Your task to perform on an android device: toggle location history Image 0: 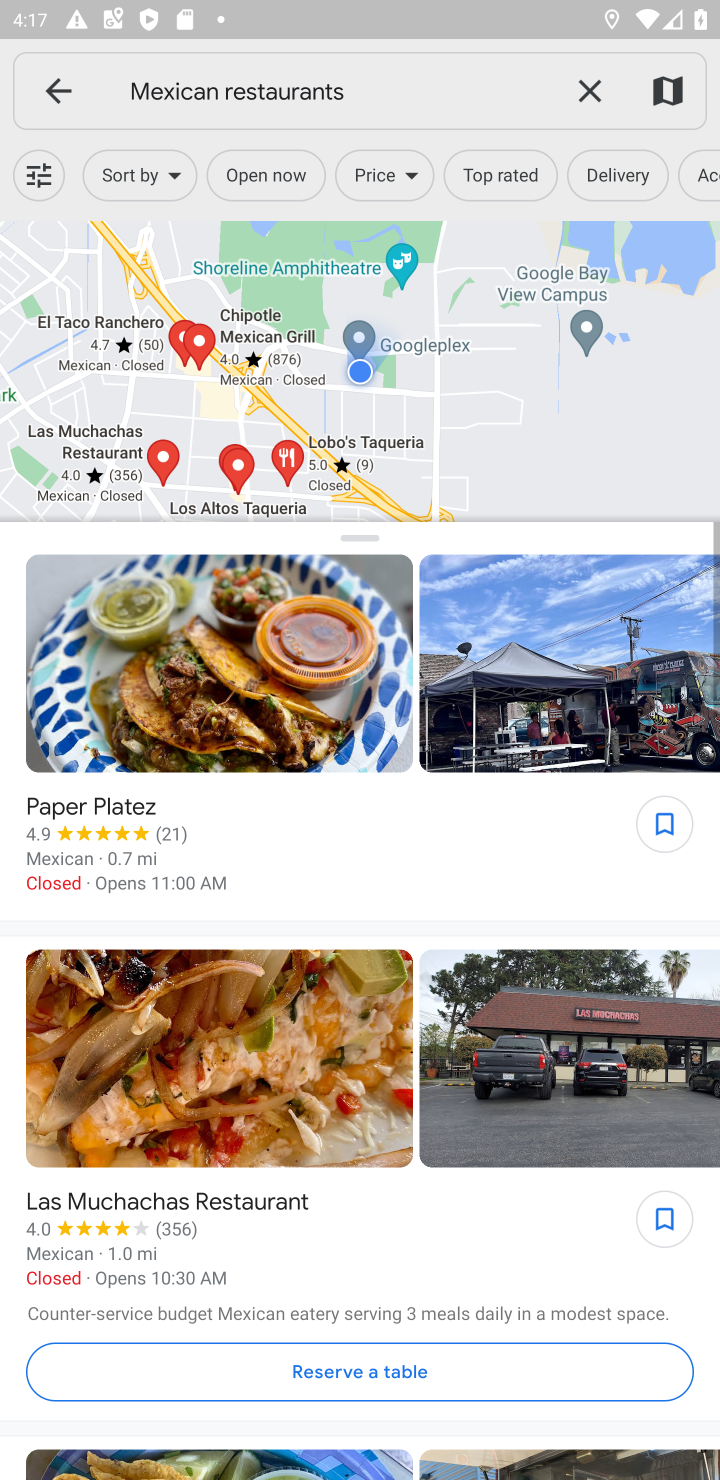
Step 0: press home button
Your task to perform on an android device: toggle location history Image 1: 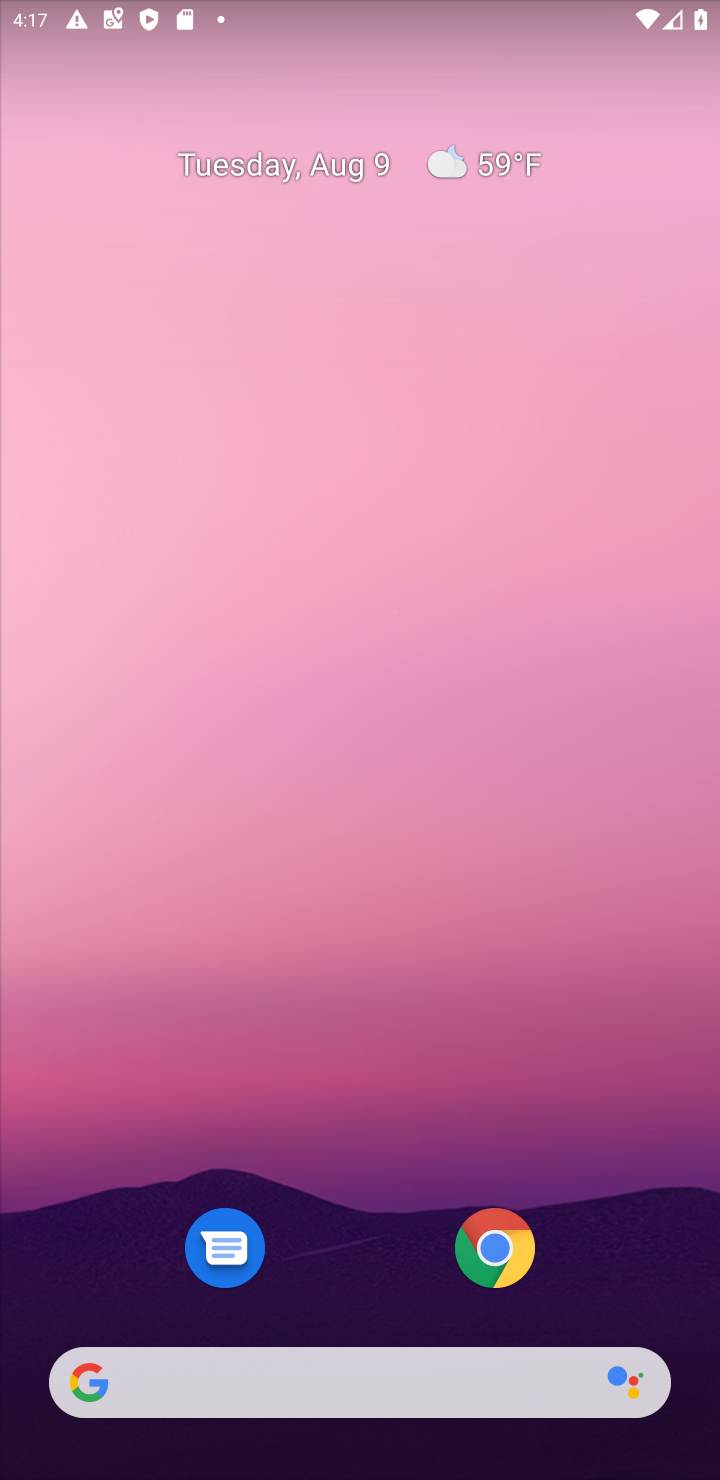
Step 1: drag from (393, 1174) to (273, 230)
Your task to perform on an android device: toggle location history Image 2: 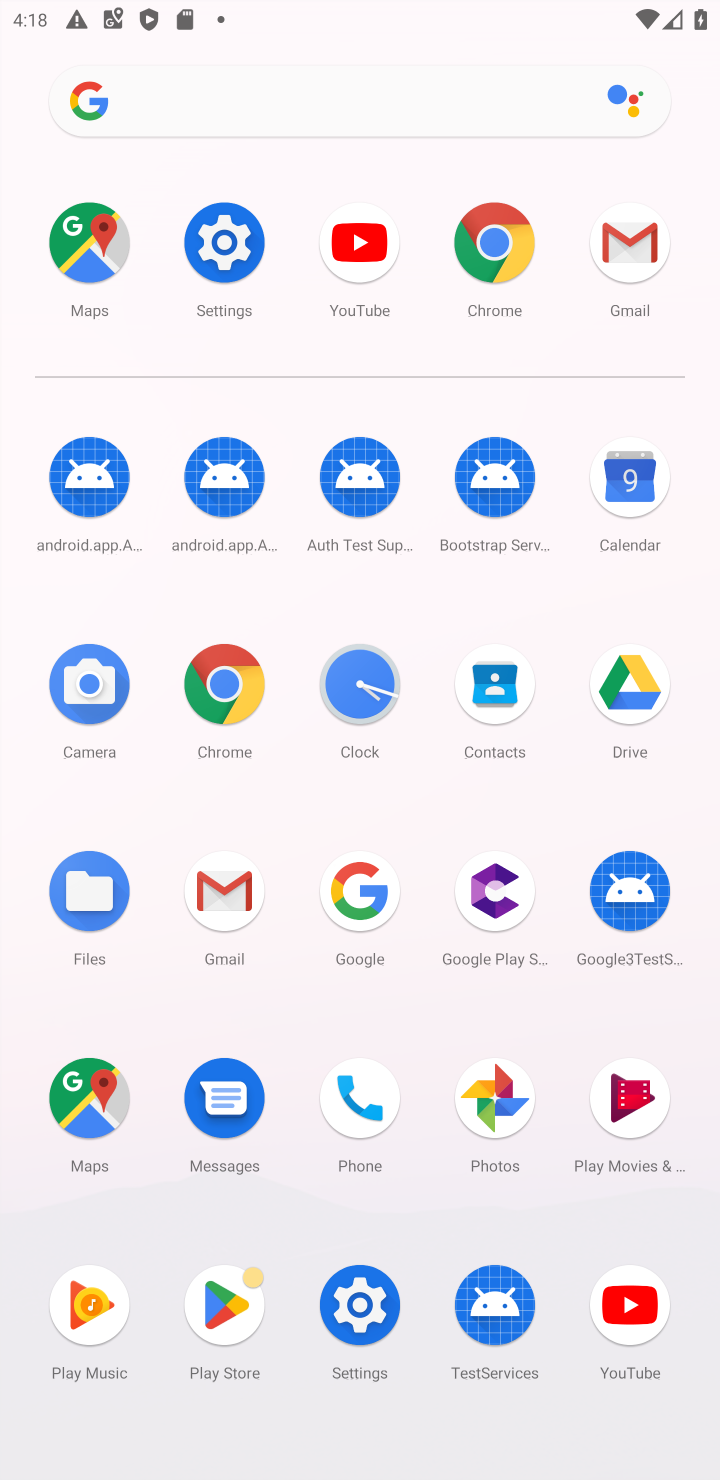
Step 2: click (361, 1286)
Your task to perform on an android device: toggle location history Image 3: 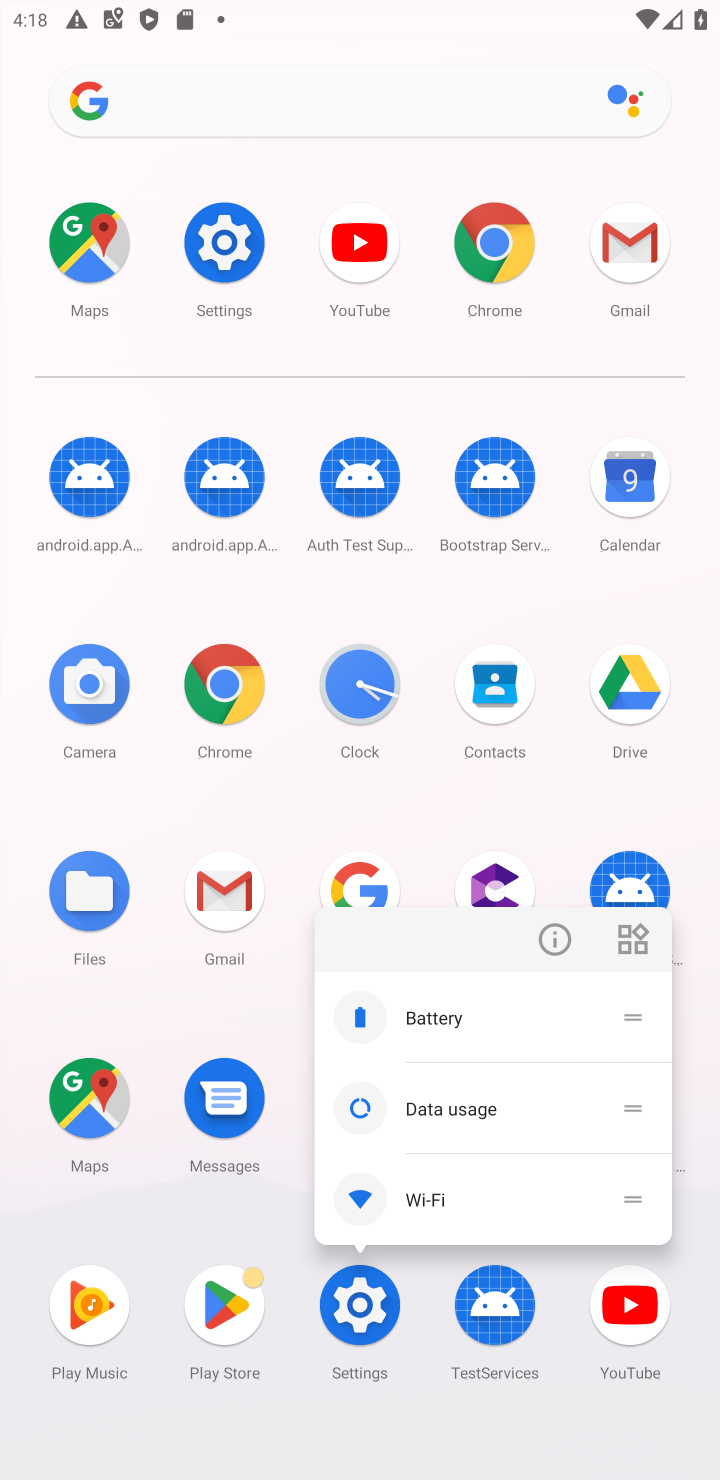
Step 3: click (363, 1304)
Your task to perform on an android device: toggle location history Image 4: 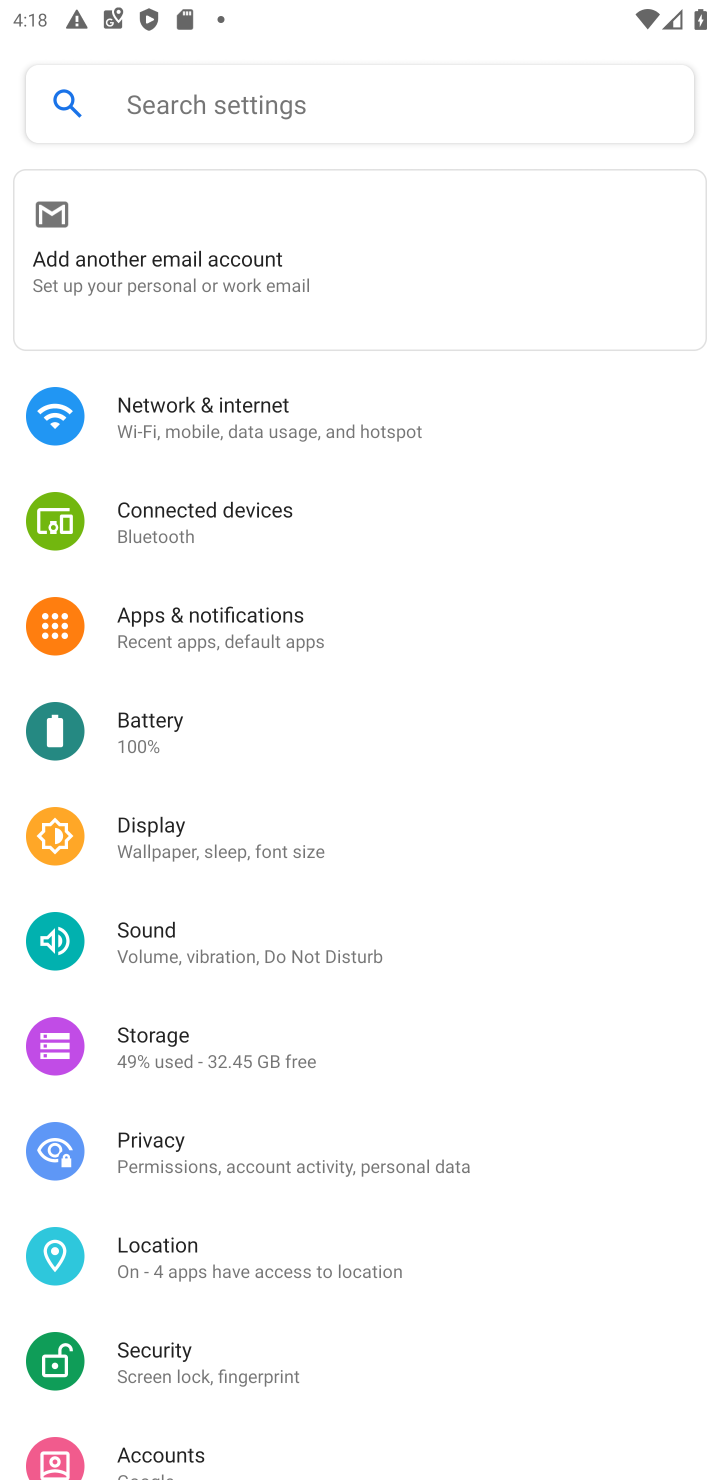
Step 4: click (351, 1276)
Your task to perform on an android device: toggle location history Image 5: 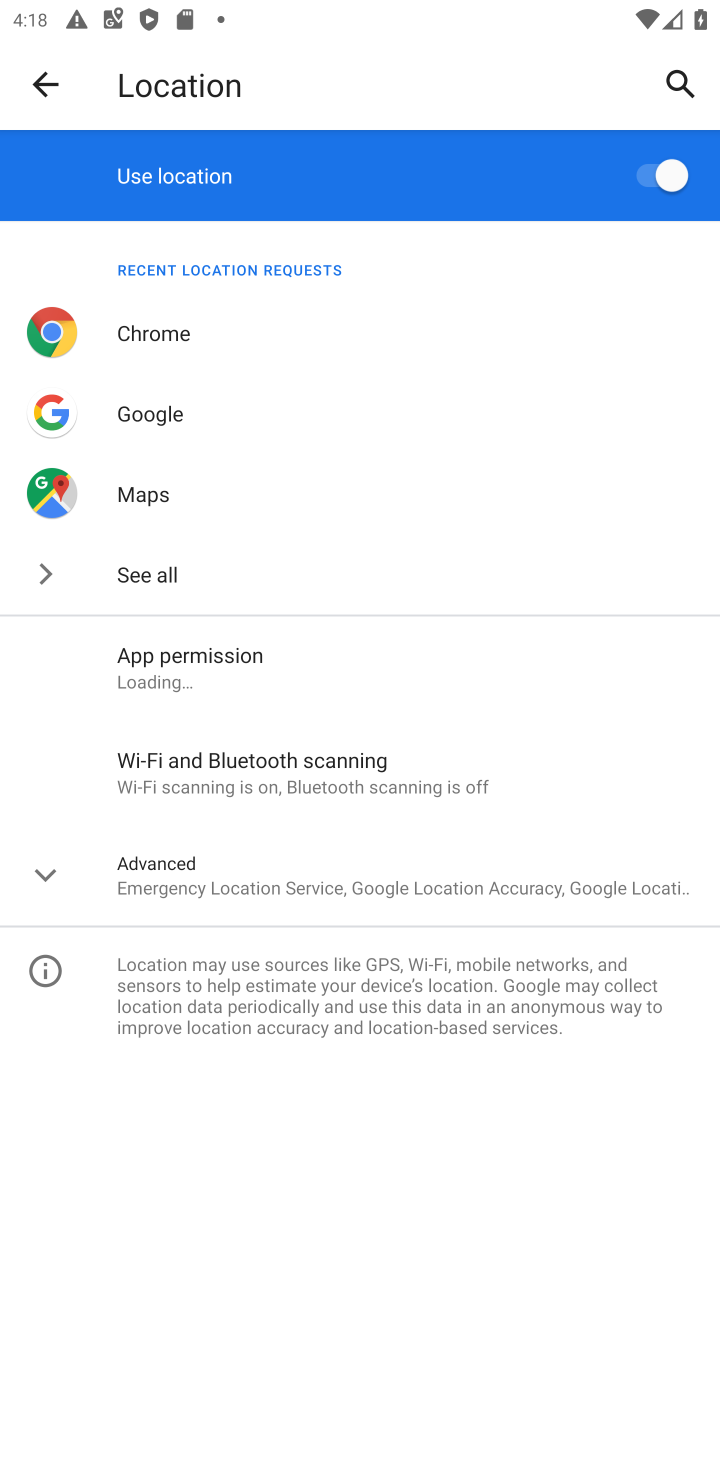
Step 5: click (215, 881)
Your task to perform on an android device: toggle location history Image 6: 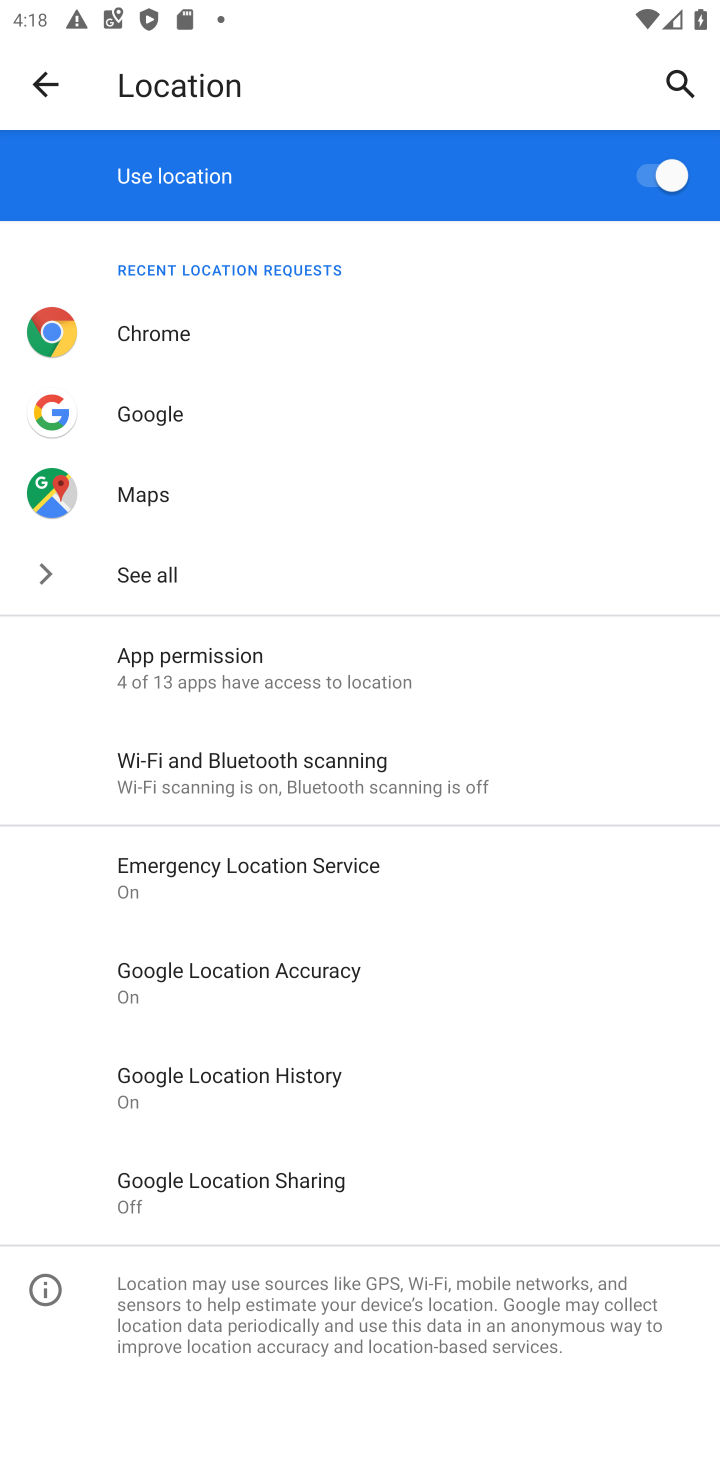
Step 6: click (236, 1068)
Your task to perform on an android device: toggle location history Image 7: 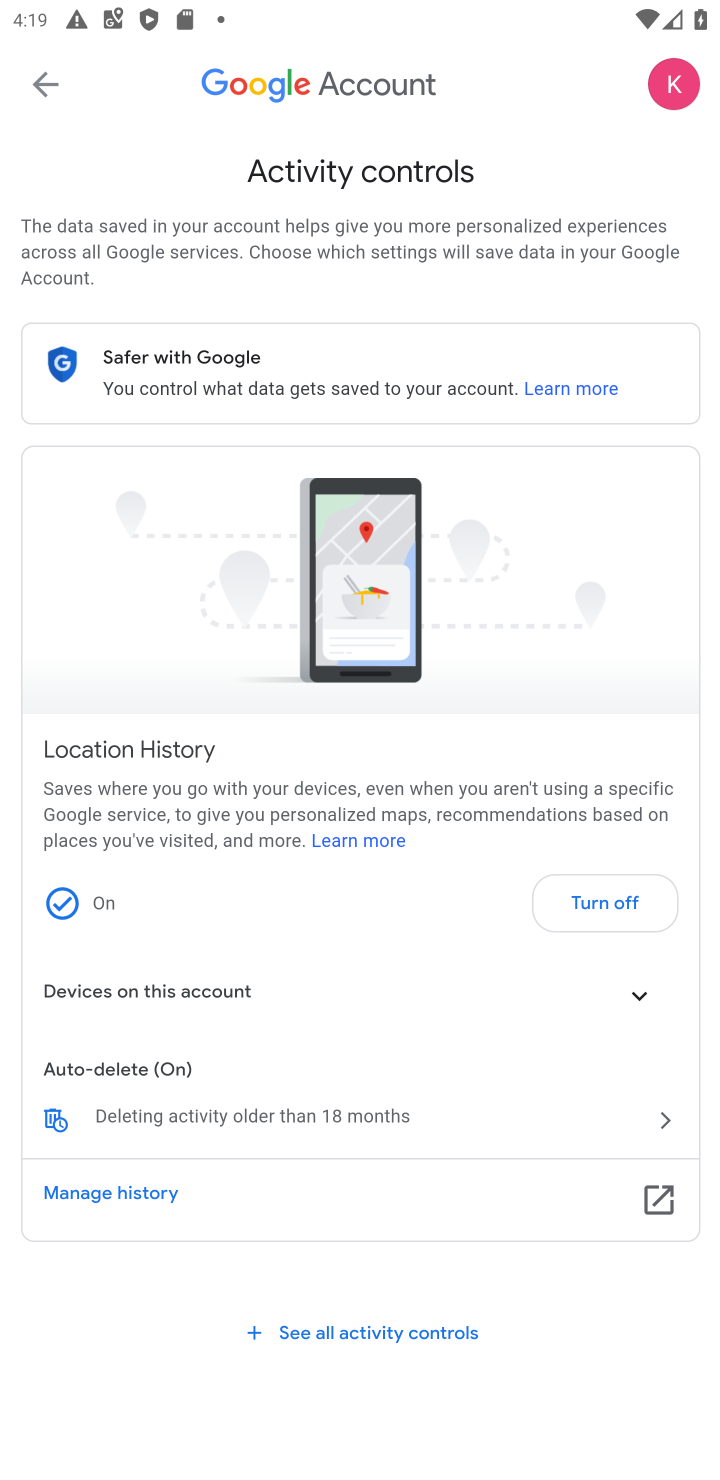
Step 7: click (636, 896)
Your task to perform on an android device: toggle location history Image 8: 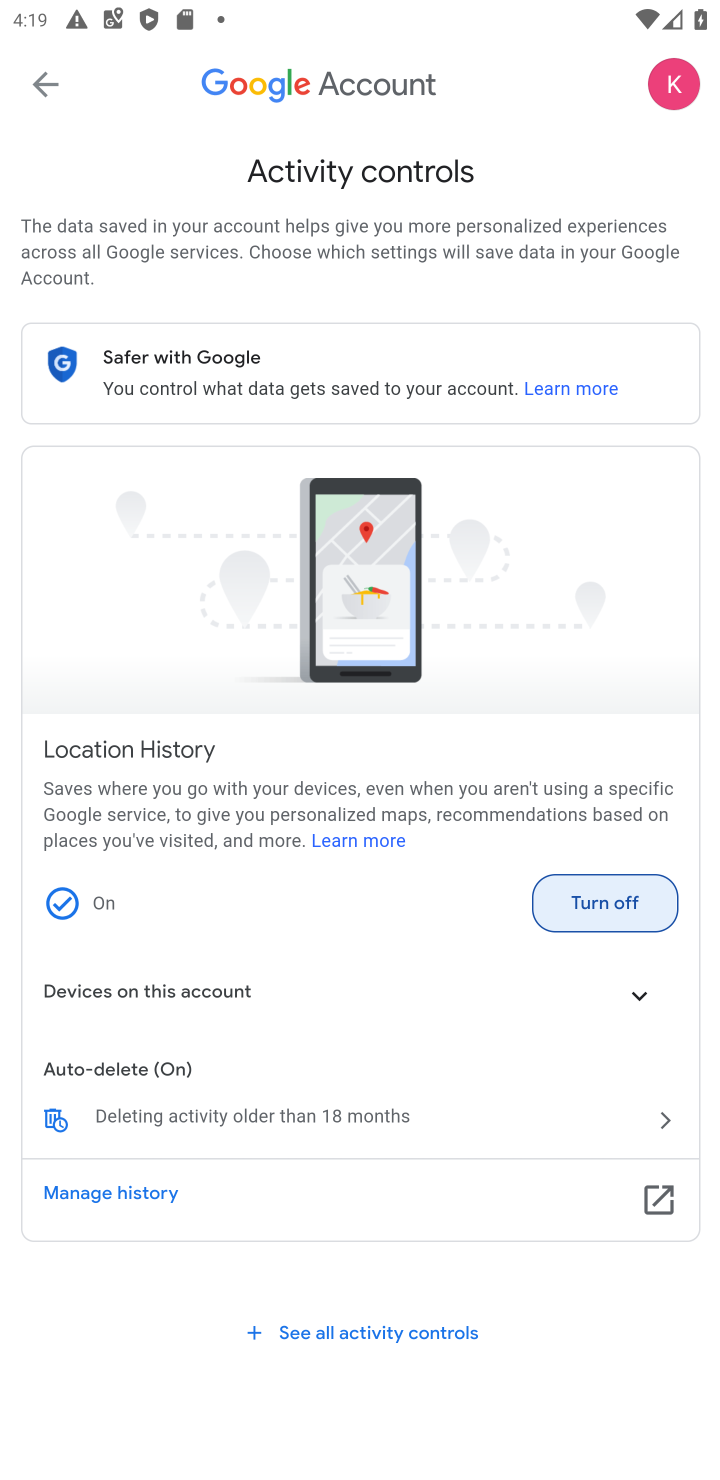
Step 8: click (636, 896)
Your task to perform on an android device: toggle location history Image 9: 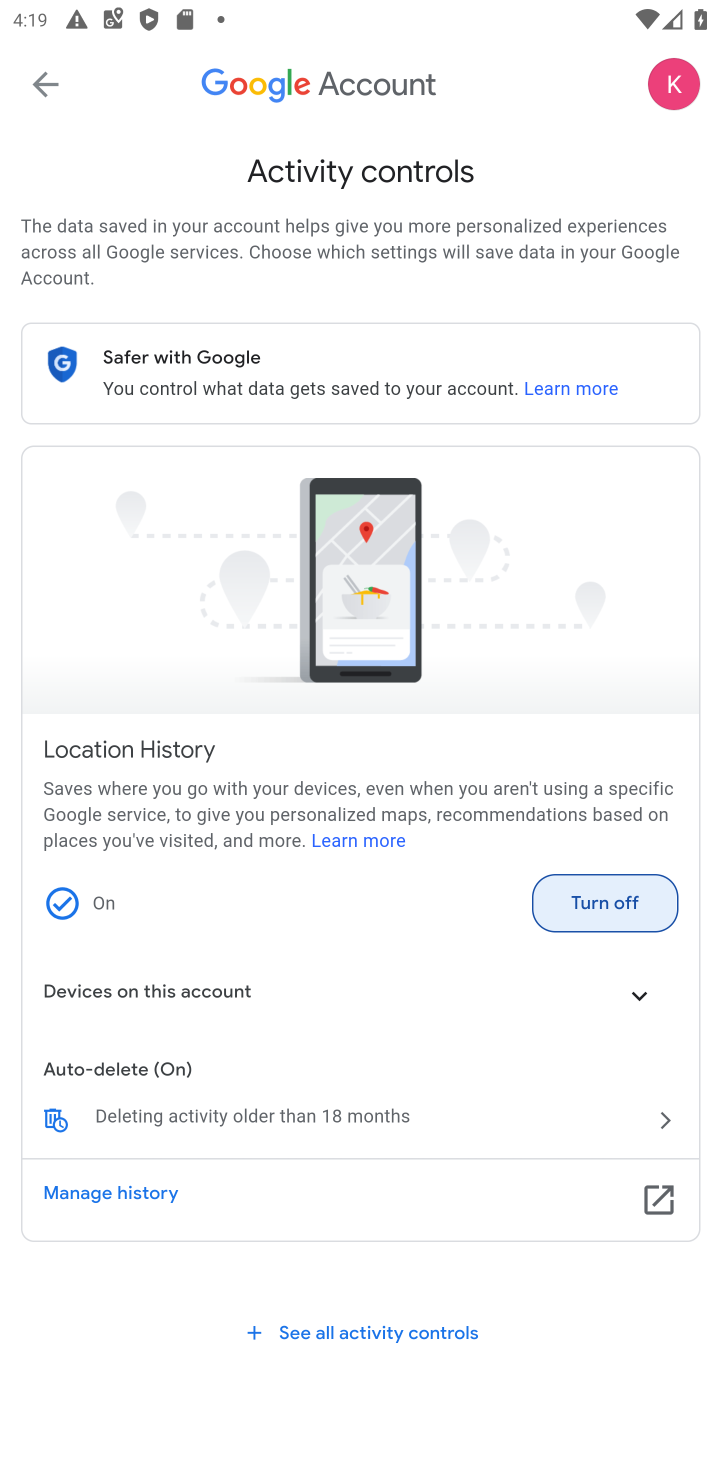
Step 9: click (627, 894)
Your task to perform on an android device: toggle location history Image 10: 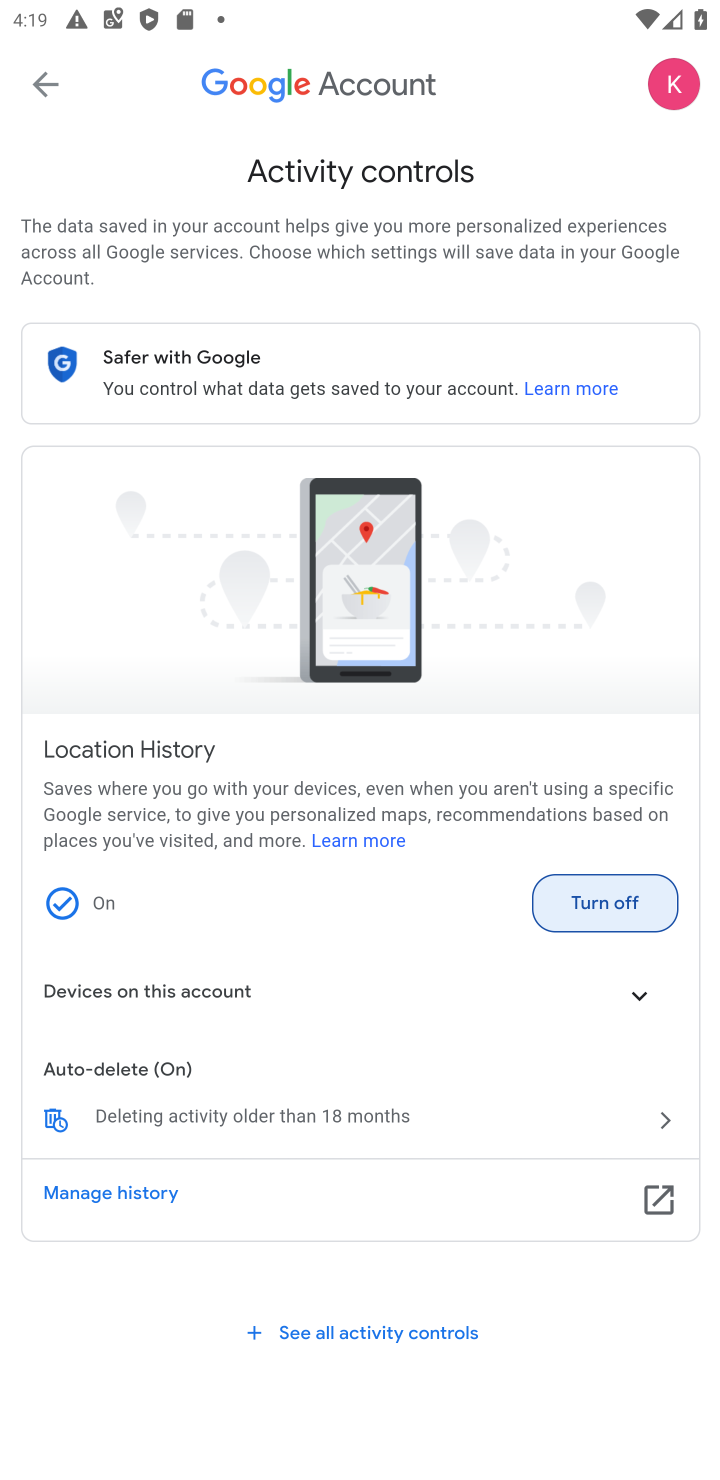
Step 10: click (627, 894)
Your task to perform on an android device: toggle location history Image 11: 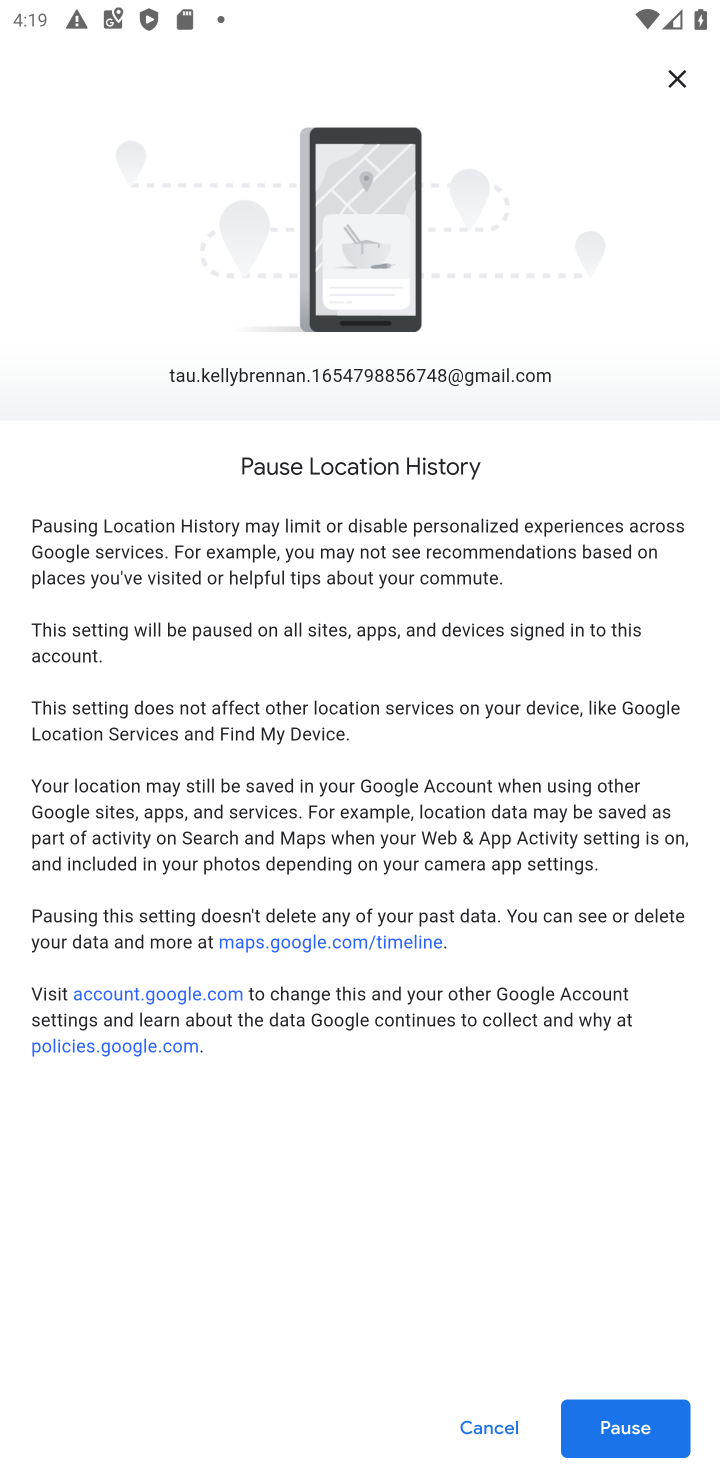
Step 11: click (626, 1428)
Your task to perform on an android device: toggle location history Image 12: 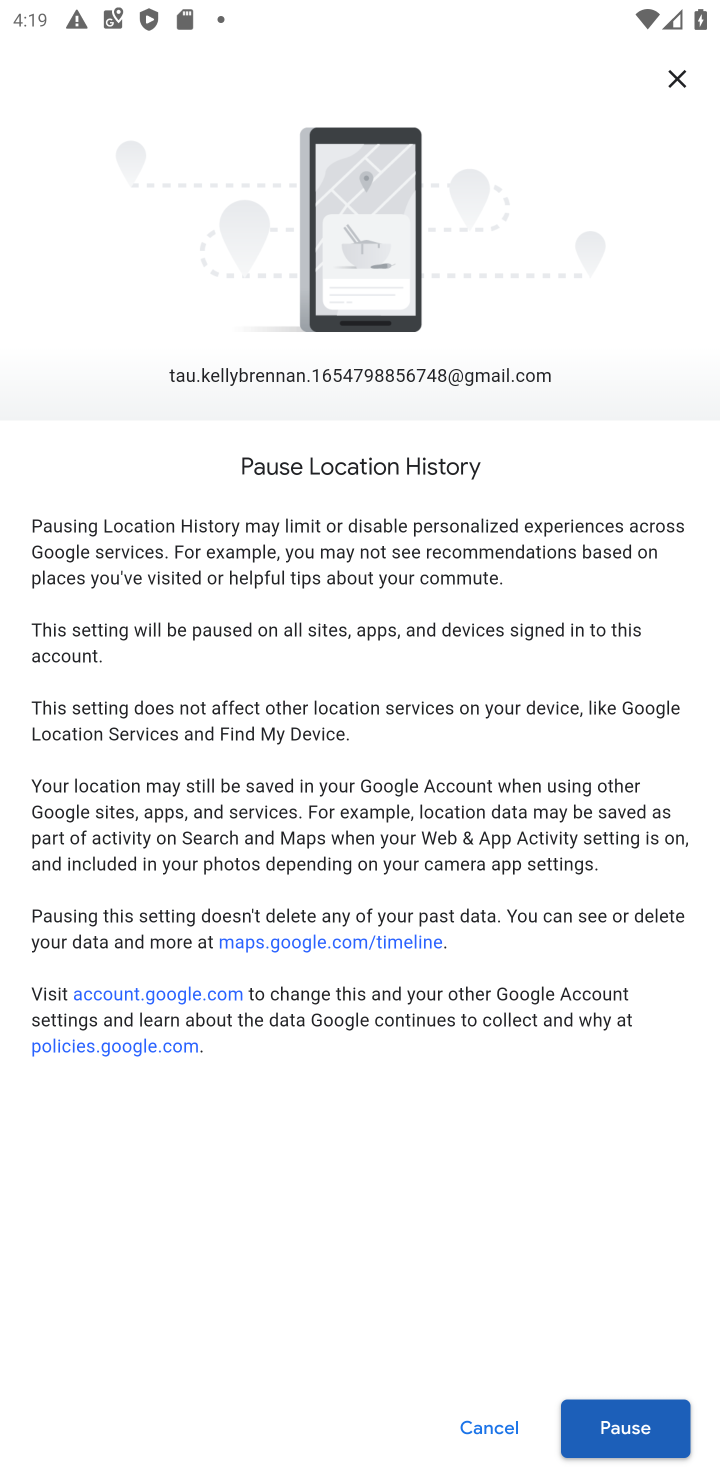
Step 12: click (626, 1420)
Your task to perform on an android device: toggle location history Image 13: 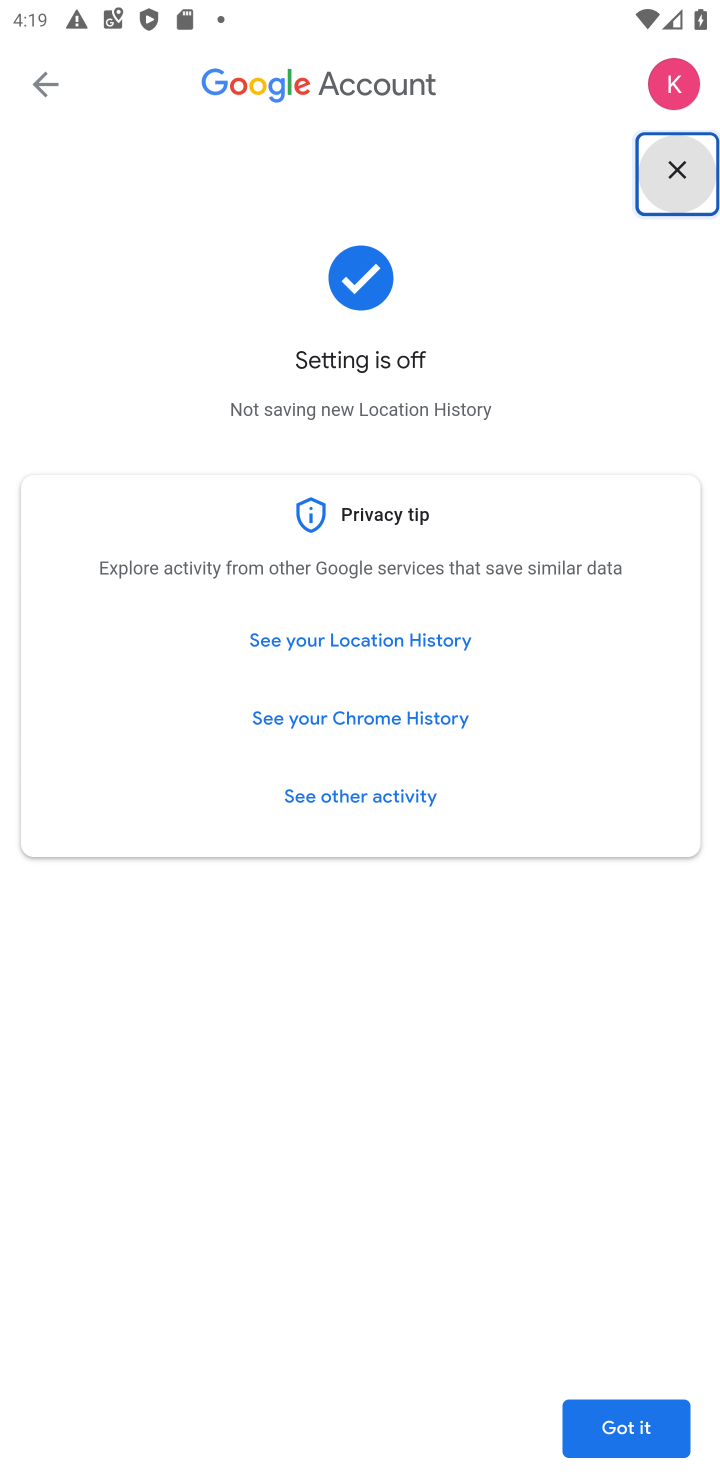
Step 13: task complete